Your task to perform on an android device: Go to accessibility settings Image 0: 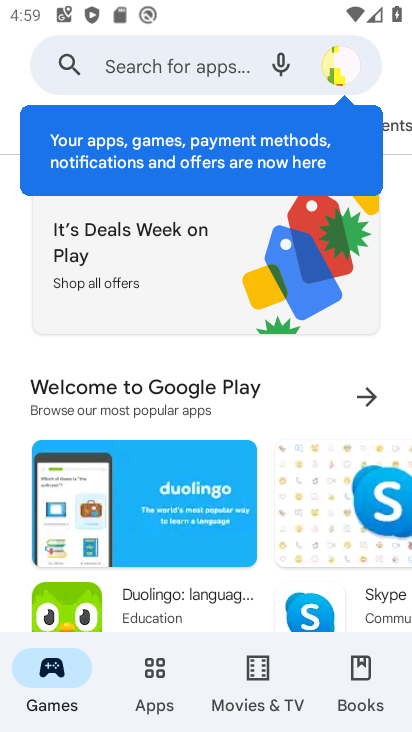
Step 0: press home button
Your task to perform on an android device: Go to accessibility settings Image 1: 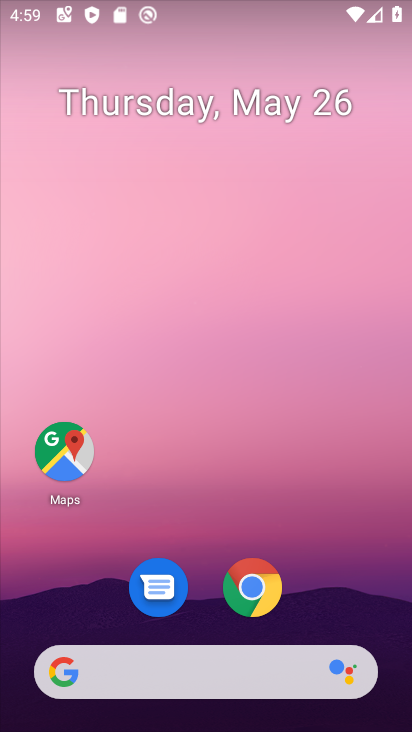
Step 1: drag from (327, 588) to (328, 208)
Your task to perform on an android device: Go to accessibility settings Image 2: 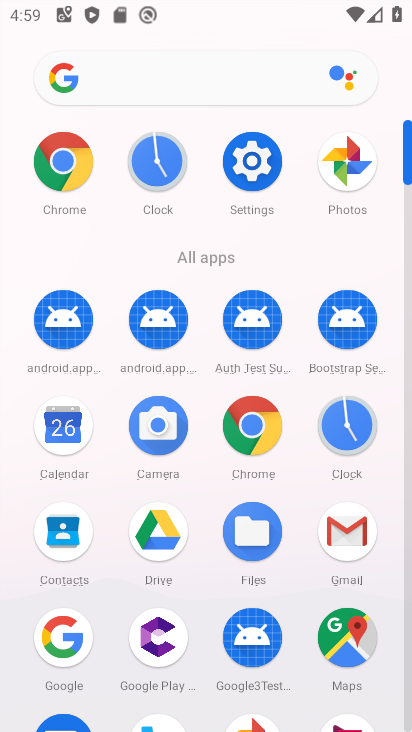
Step 2: click (252, 160)
Your task to perform on an android device: Go to accessibility settings Image 3: 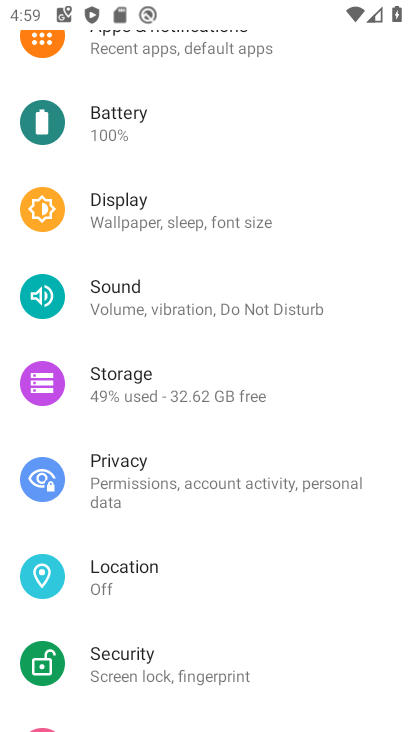
Step 3: drag from (161, 519) to (134, 422)
Your task to perform on an android device: Go to accessibility settings Image 4: 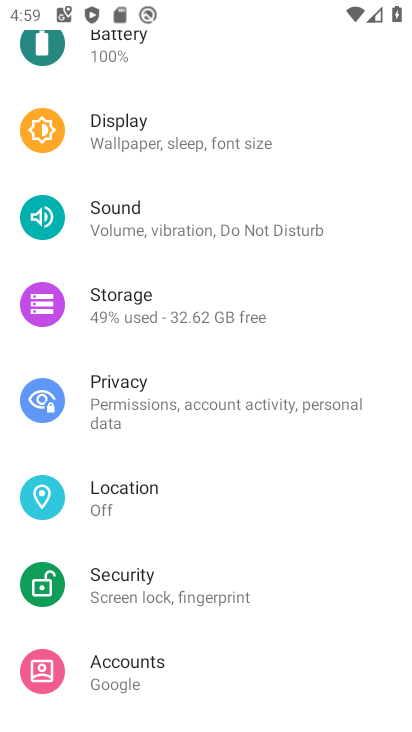
Step 4: drag from (168, 533) to (179, 396)
Your task to perform on an android device: Go to accessibility settings Image 5: 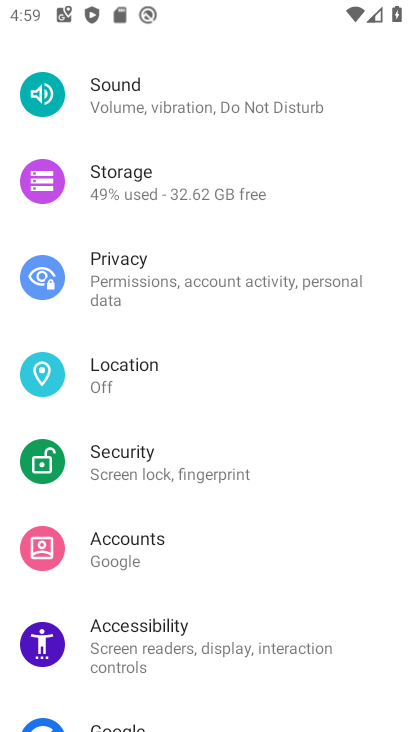
Step 5: drag from (166, 517) to (210, 369)
Your task to perform on an android device: Go to accessibility settings Image 6: 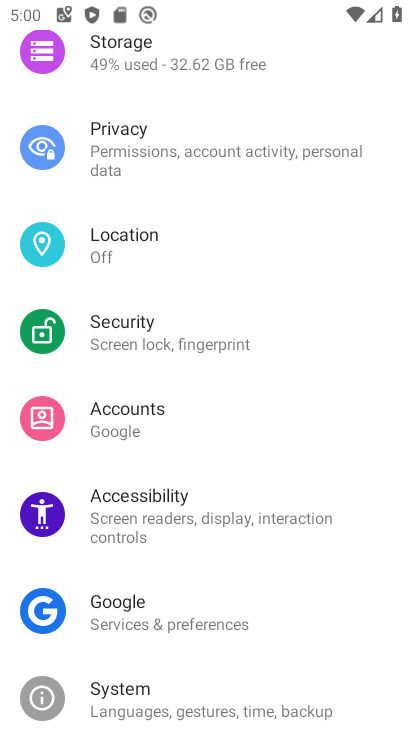
Step 6: click (145, 522)
Your task to perform on an android device: Go to accessibility settings Image 7: 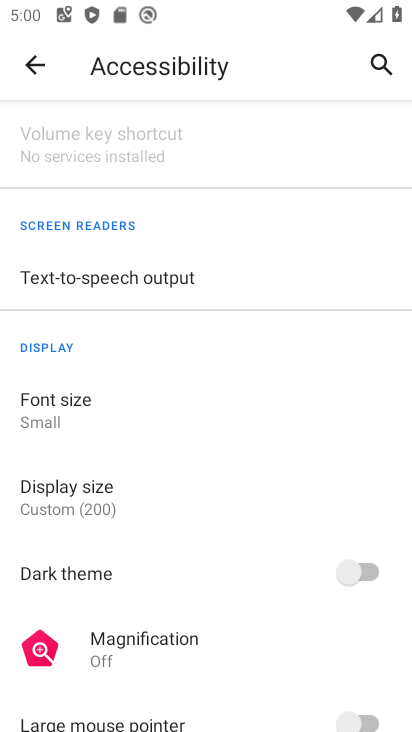
Step 7: task complete